Your task to perform on an android device: check data usage Image 0: 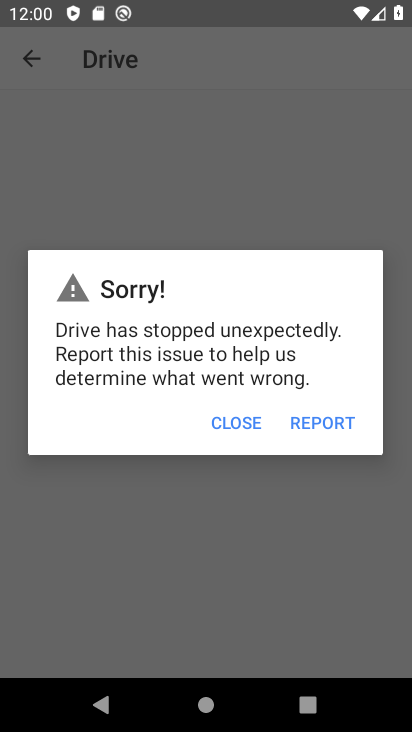
Step 0: press home button
Your task to perform on an android device: check data usage Image 1: 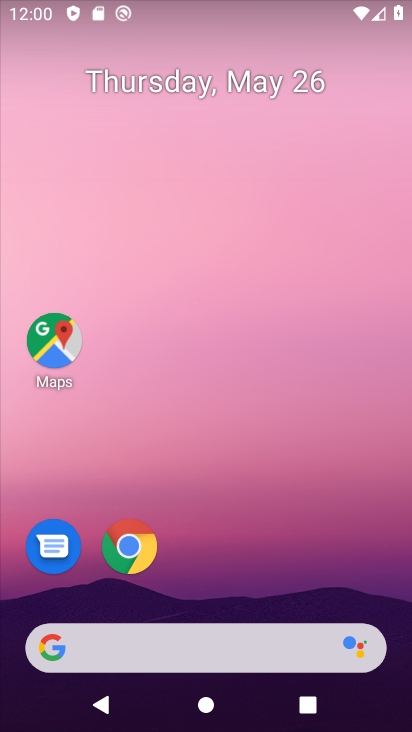
Step 1: drag from (249, 687) to (221, 14)
Your task to perform on an android device: check data usage Image 2: 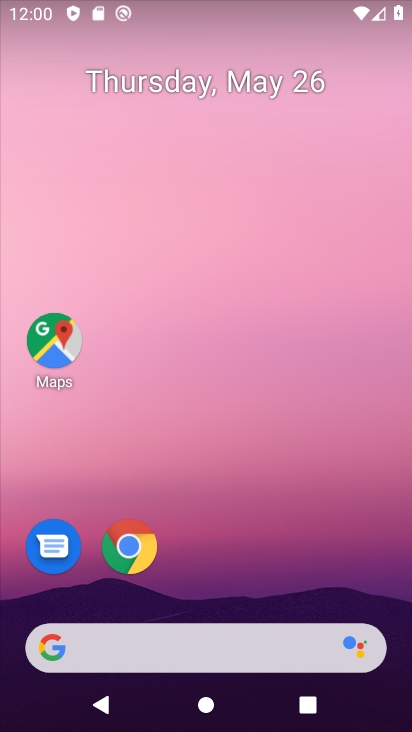
Step 2: drag from (249, 710) to (392, 446)
Your task to perform on an android device: check data usage Image 3: 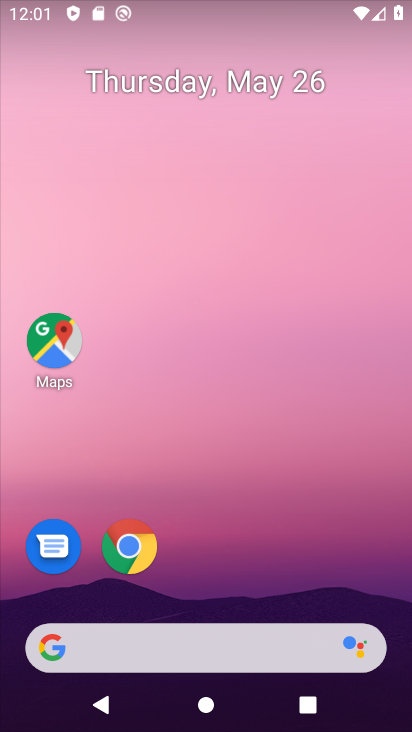
Step 3: drag from (221, 573) to (352, 19)
Your task to perform on an android device: check data usage Image 4: 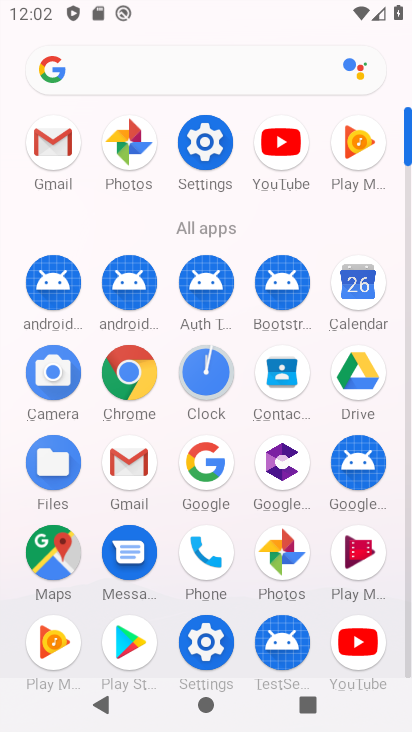
Step 4: click (211, 134)
Your task to perform on an android device: check data usage Image 5: 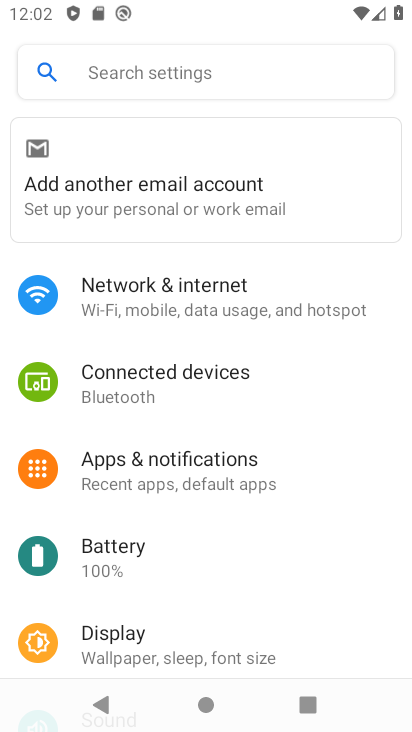
Step 5: click (225, 304)
Your task to perform on an android device: check data usage Image 6: 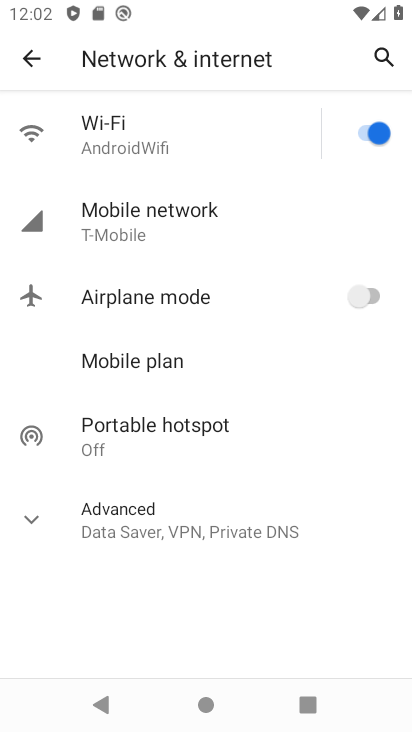
Step 6: click (209, 214)
Your task to perform on an android device: check data usage Image 7: 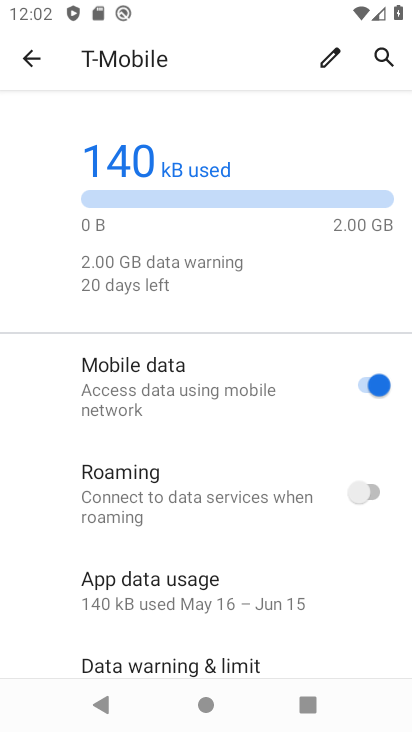
Step 7: task complete